Your task to perform on an android device: Open notification settings Image 0: 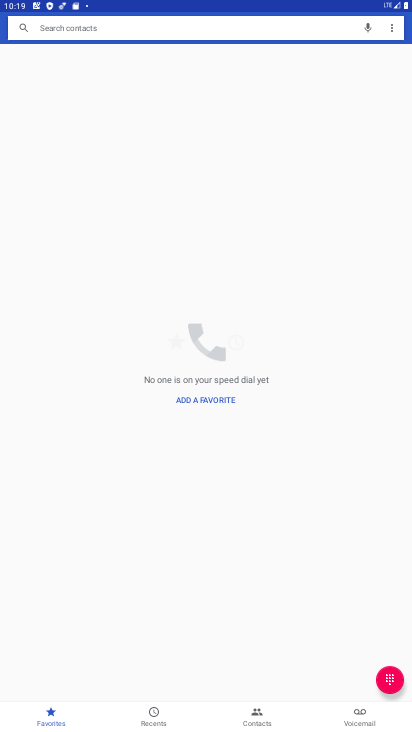
Step 0: press home button
Your task to perform on an android device: Open notification settings Image 1: 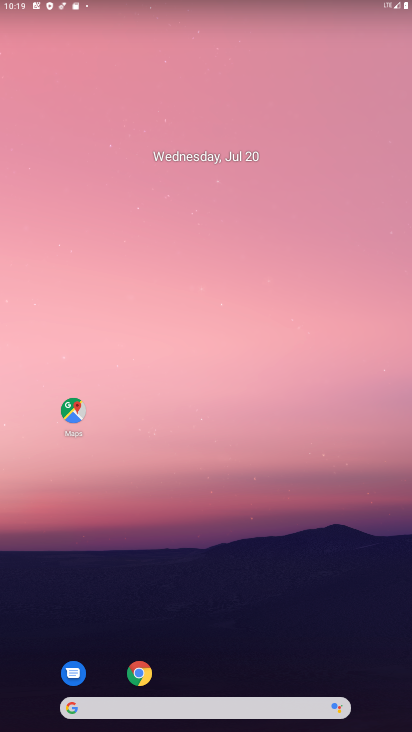
Step 1: drag from (190, 704) to (161, 192)
Your task to perform on an android device: Open notification settings Image 2: 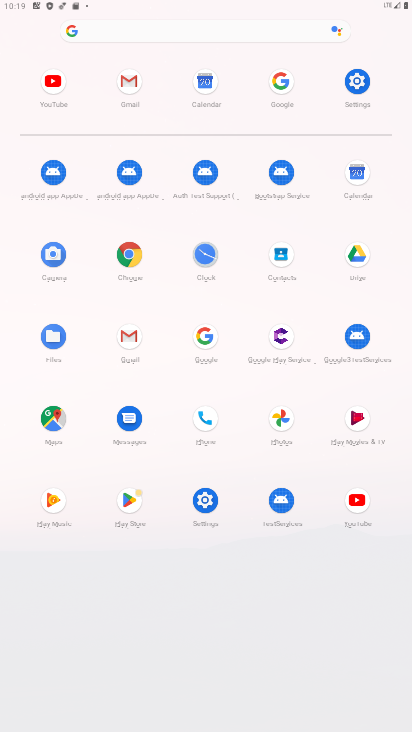
Step 2: click (358, 80)
Your task to perform on an android device: Open notification settings Image 3: 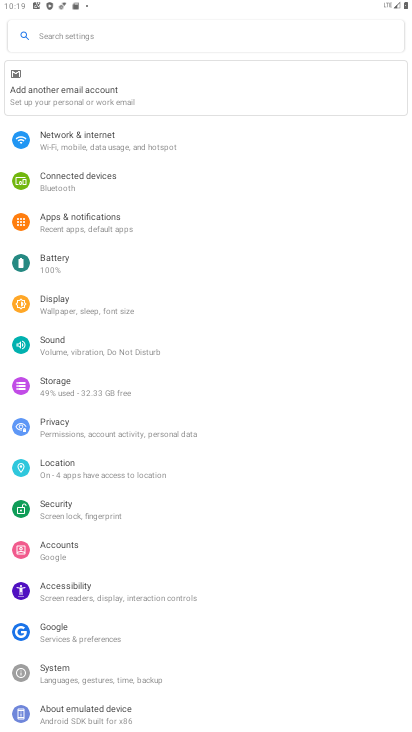
Step 3: click (83, 225)
Your task to perform on an android device: Open notification settings Image 4: 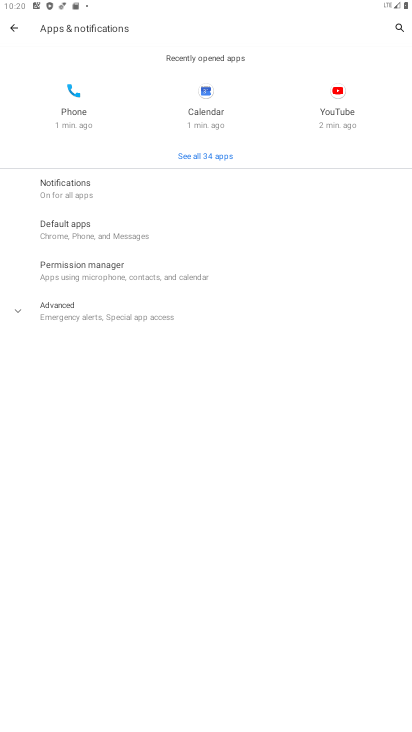
Step 4: click (81, 193)
Your task to perform on an android device: Open notification settings Image 5: 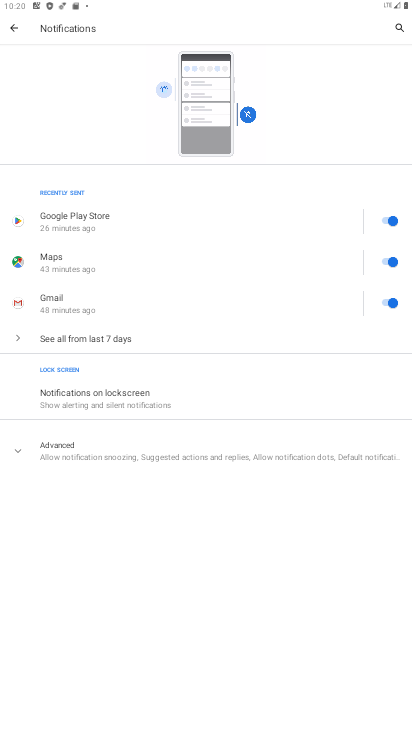
Step 5: task complete